Your task to perform on an android device: Go to calendar. Show me events next week Image 0: 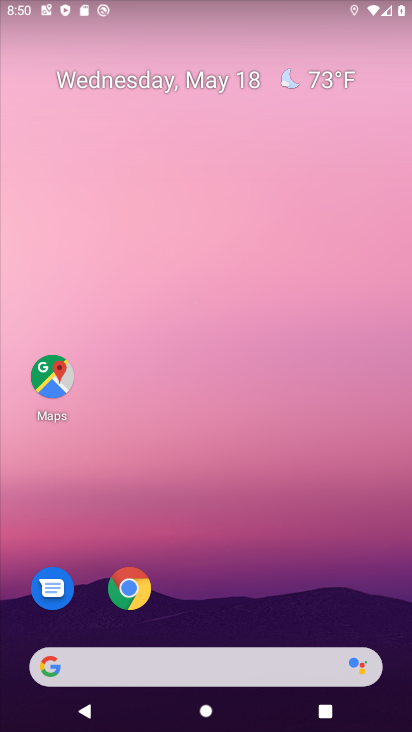
Step 0: drag from (292, 516) to (284, 172)
Your task to perform on an android device: Go to calendar. Show me events next week Image 1: 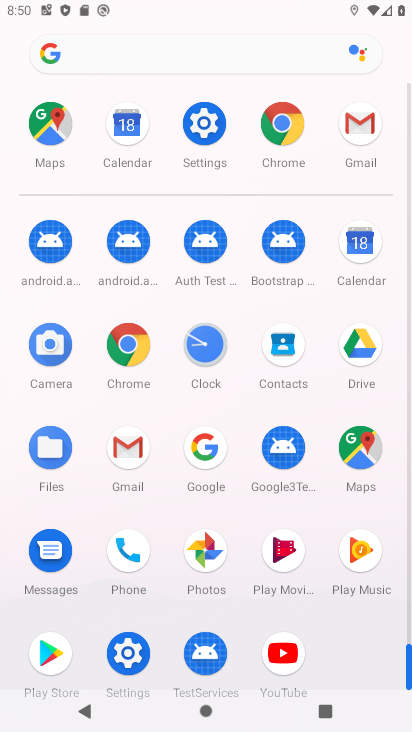
Step 1: click (356, 249)
Your task to perform on an android device: Go to calendar. Show me events next week Image 2: 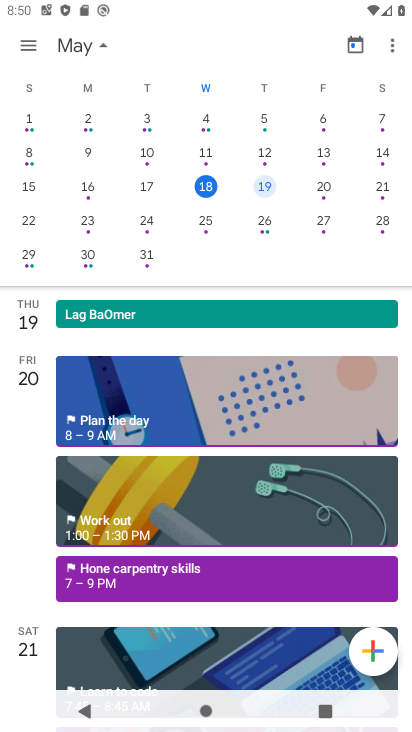
Step 2: click (32, 218)
Your task to perform on an android device: Go to calendar. Show me events next week Image 3: 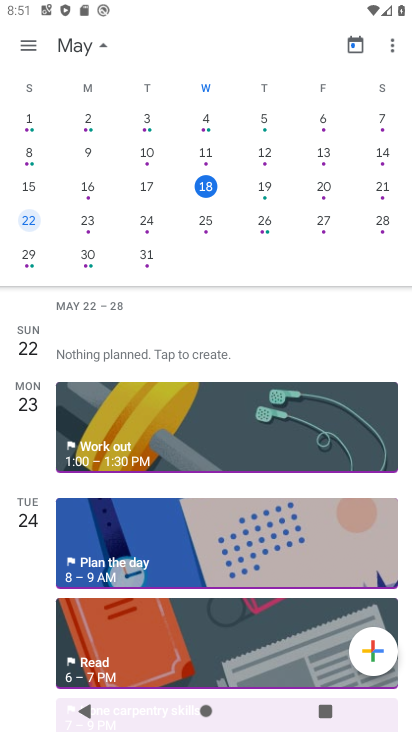
Step 3: task complete